Your task to perform on an android device: turn on the 24-hour format for clock Image 0: 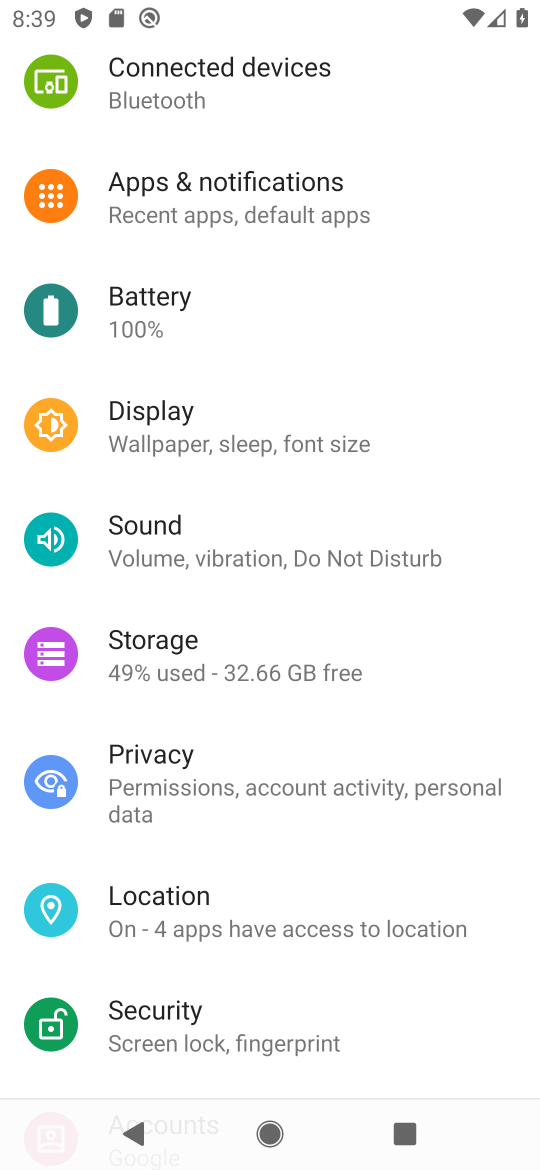
Step 0: press home button
Your task to perform on an android device: turn on the 24-hour format for clock Image 1: 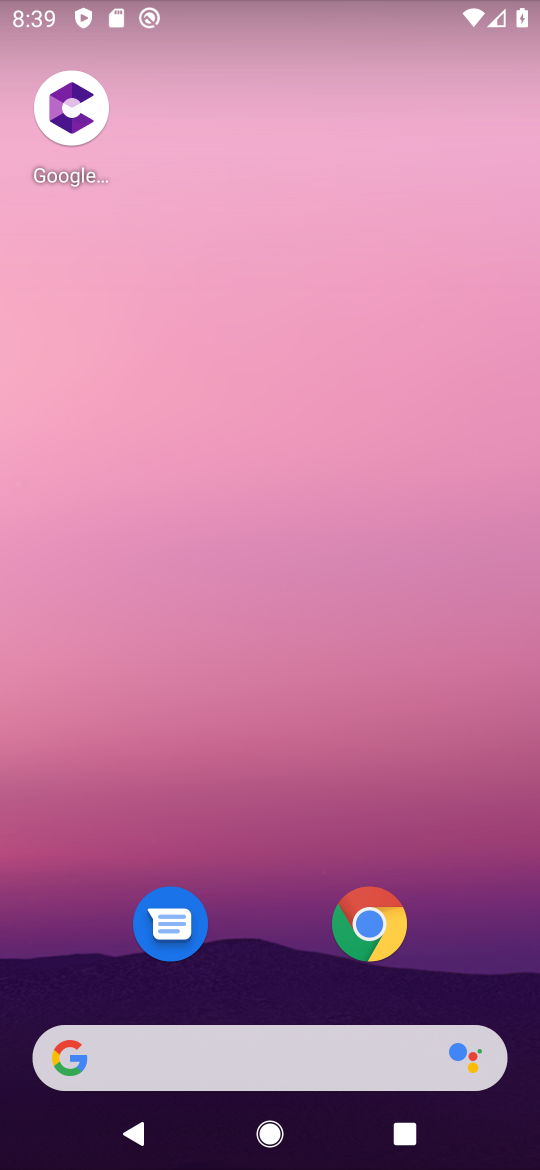
Step 1: drag from (263, 1028) to (460, 3)
Your task to perform on an android device: turn on the 24-hour format for clock Image 2: 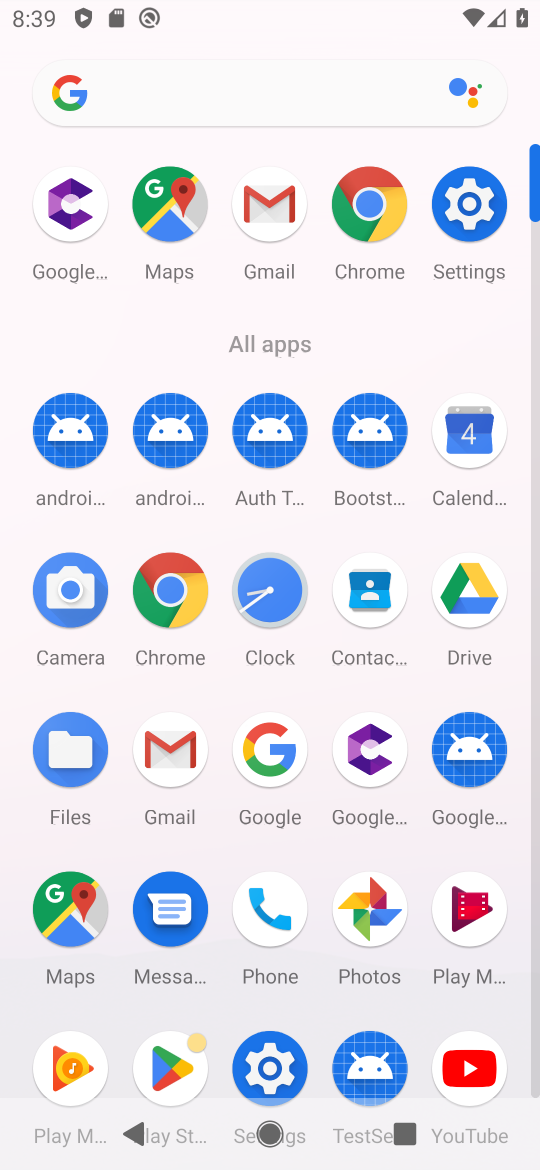
Step 2: click (274, 572)
Your task to perform on an android device: turn on the 24-hour format for clock Image 3: 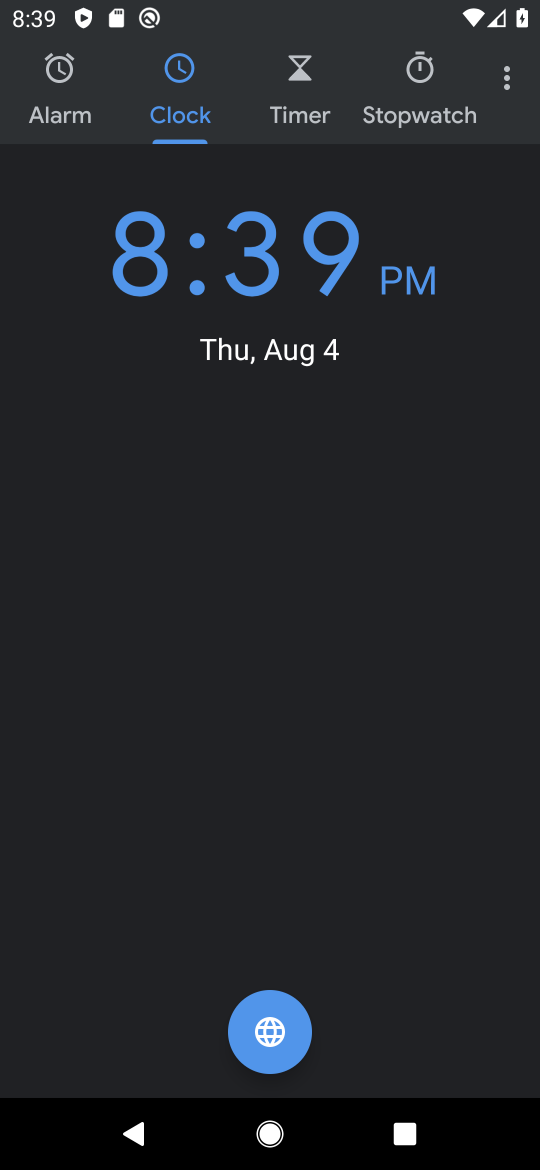
Step 3: click (509, 67)
Your task to perform on an android device: turn on the 24-hour format for clock Image 4: 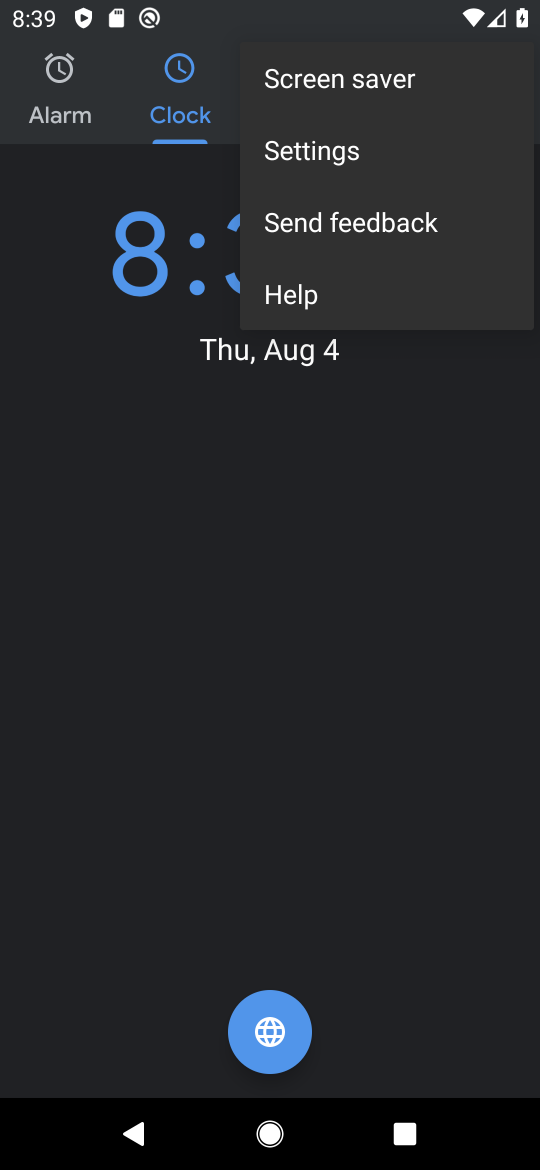
Step 4: click (310, 142)
Your task to perform on an android device: turn on the 24-hour format for clock Image 5: 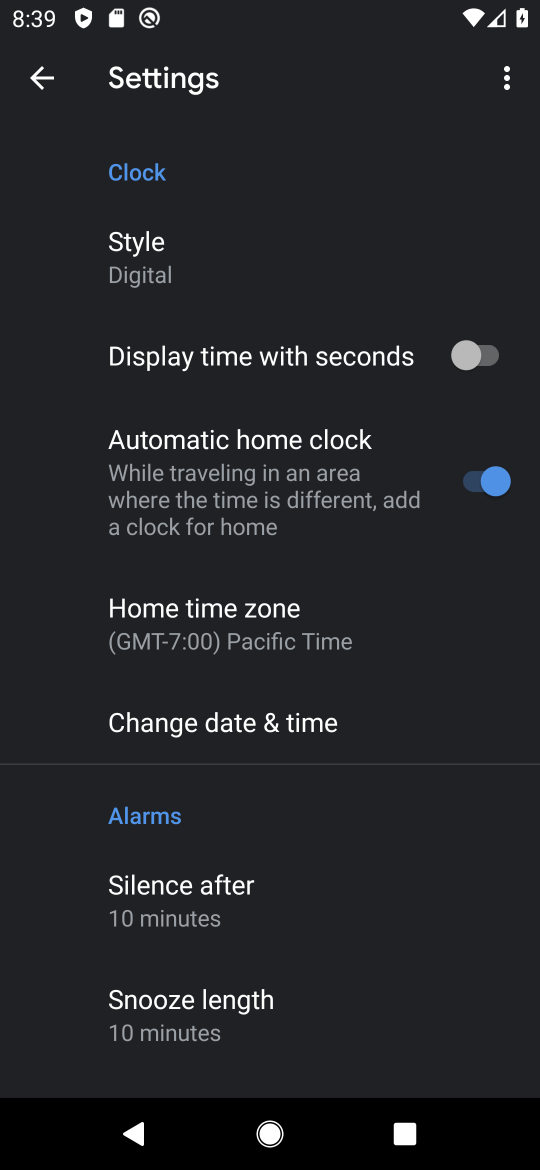
Step 5: click (269, 708)
Your task to perform on an android device: turn on the 24-hour format for clock Image 6: 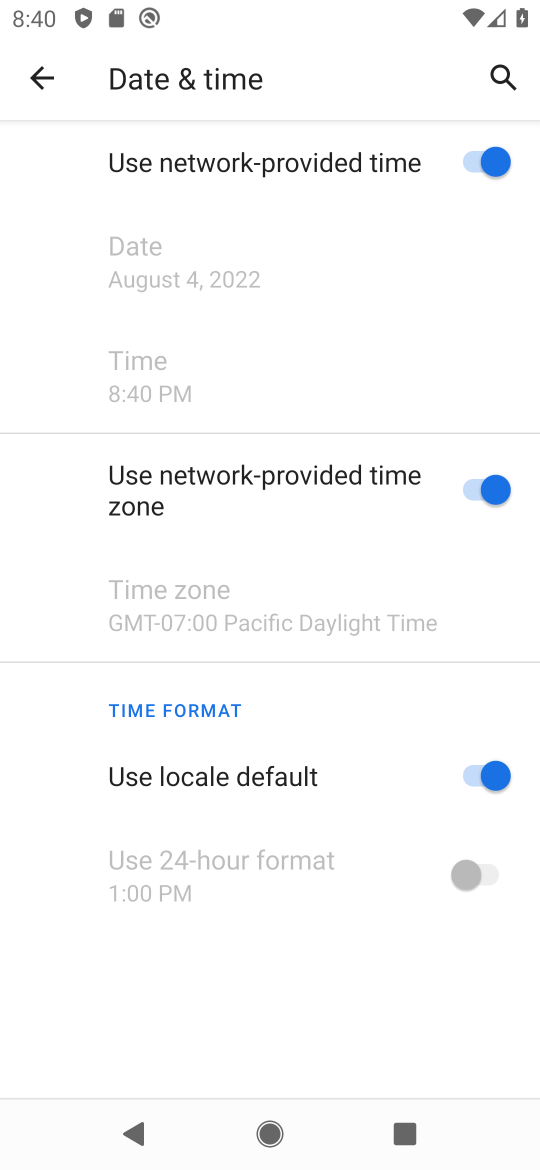
Step 6: click (486, 758)
Your task to perform on an android device: turn on the 24-hour format for clock Image 7: 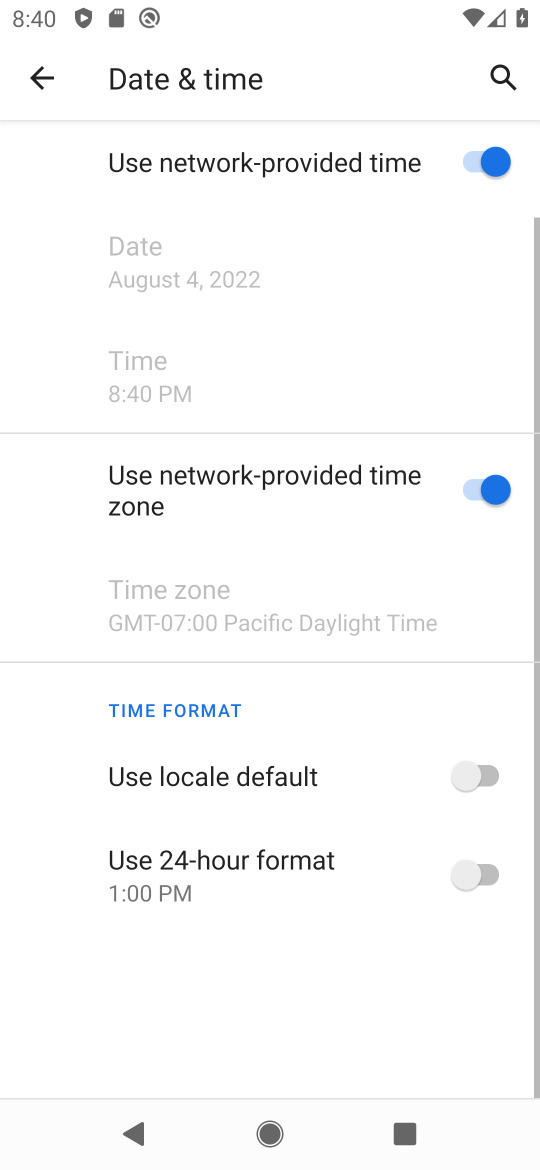
Step 7: click (477, 884)
Your task to perform on an android device: turn on the 24-hour format for clock Image 8: 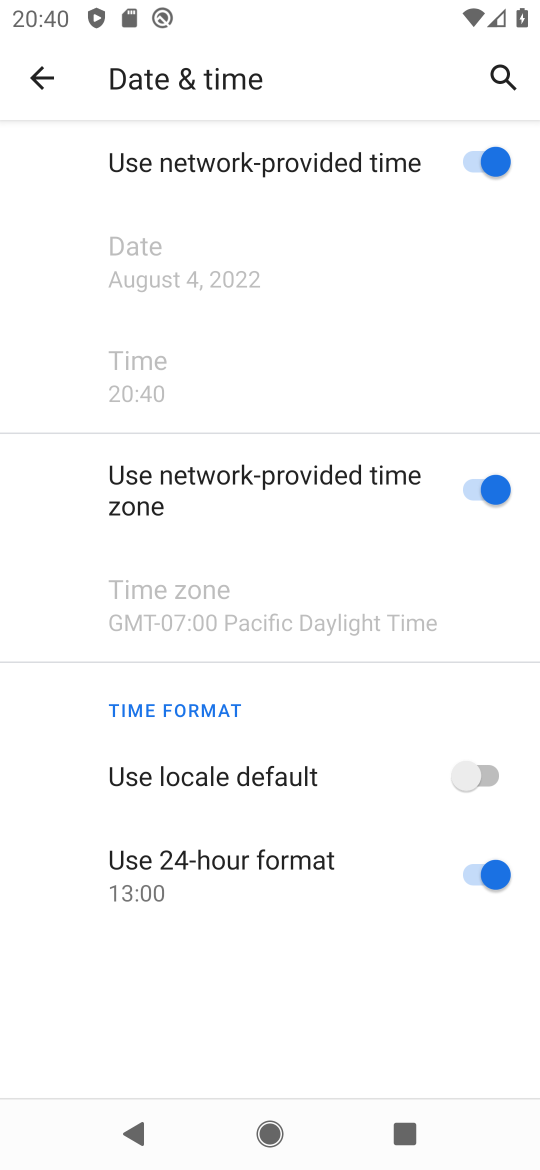
Step 8: task complete